Your task to perform on an android device: turn off javascript in the chrome app Image 0: 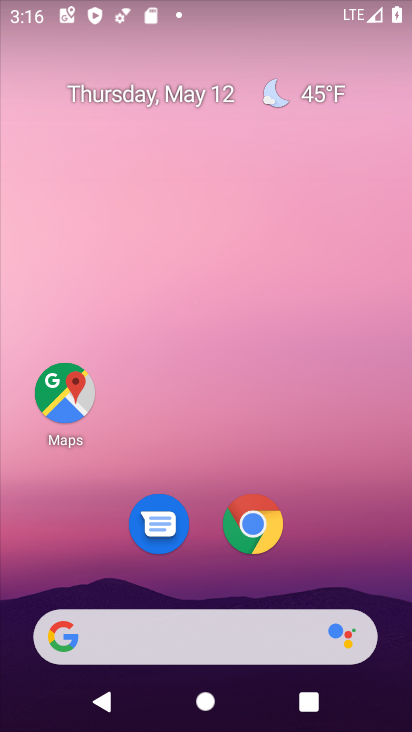
Step 0: click (251, 517)
Your task to perform on an android device: turn off javascript in the chrome app Image 1: 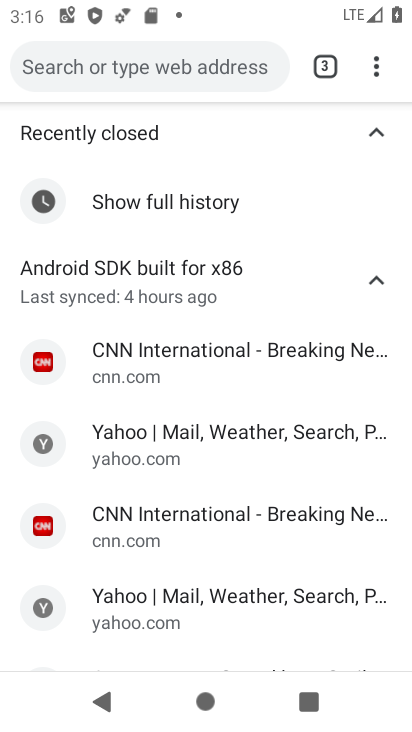
Step 1: click (379, 69)
Your task to perform on an android device: turn off javascript in the chrome app Image 2: 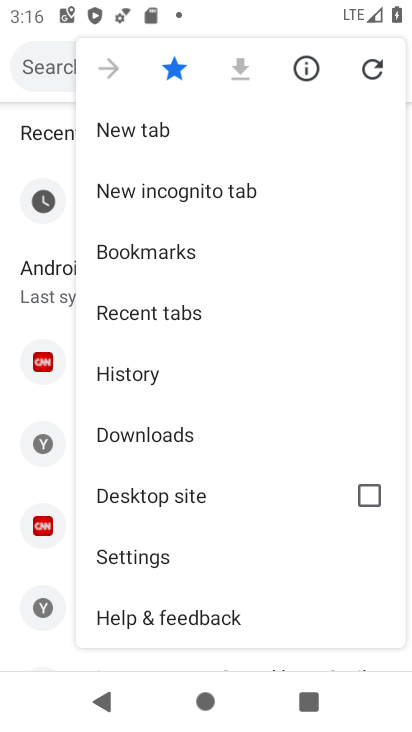
Step 2: click (147, 543)
Your task to perform on an android device: turn off javascript in the chrome app Image 3: 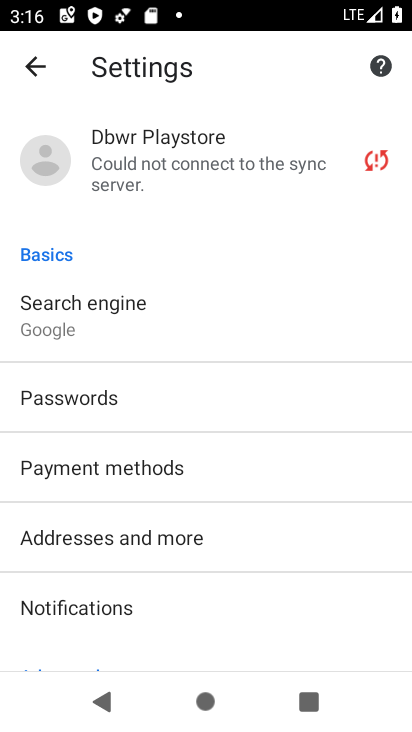
Step 3: drag from (147, 541) to (150, 173)
Your task to perform on an android device: turn off javascript in the chrome app Image 4: 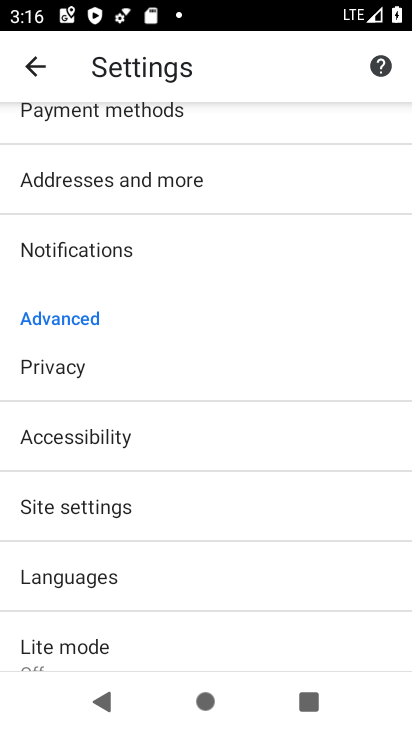
Step 4: click (204, 509)
Your task to perform on an android device: turn off javascript in the chrome app Image 5: 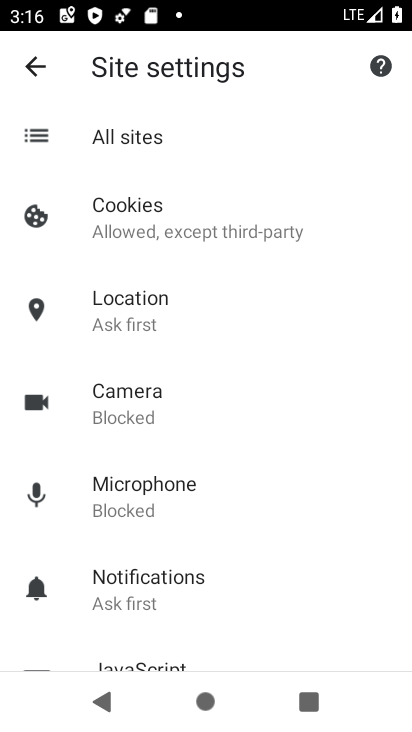
Step 5: drag from (231, 501) to (281, 214)
Your task to perform on an android device: turn off javascript in the chrome app Image 6: 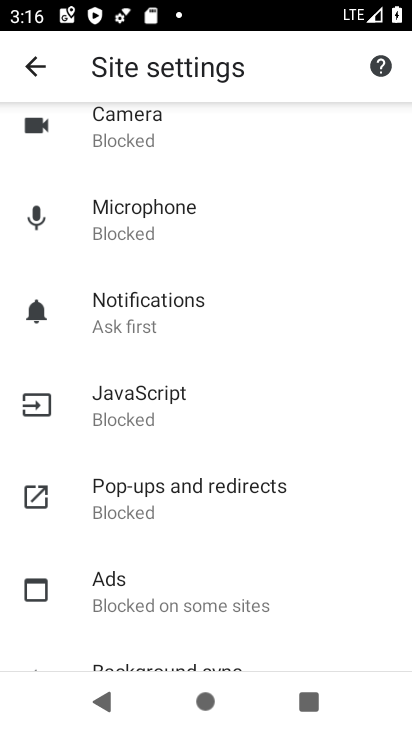
Step 6: click (194, 393)
Your task to perform on an android device: turn off javascript in the chrome app Image 7: 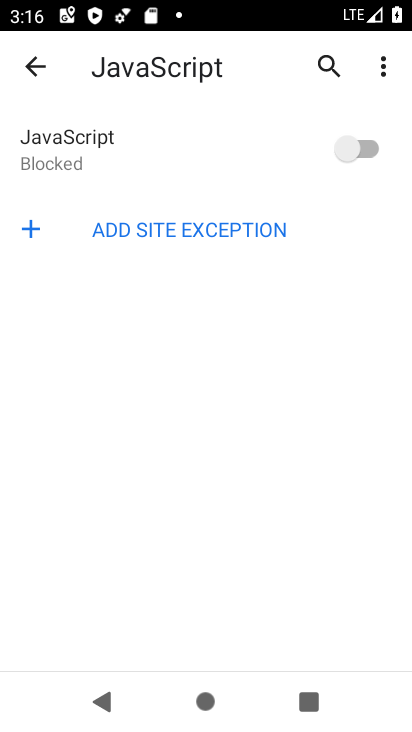
Step 7: task complete